Your task to perform on an android device: toggle wifi Image 0: 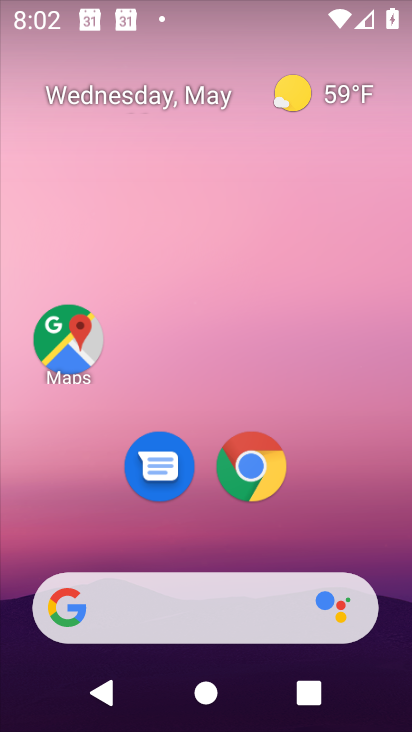
Step 0: drag from (345, 535) to (335, 251)
Your task to perform on an android device: toggle wifi Image 1: 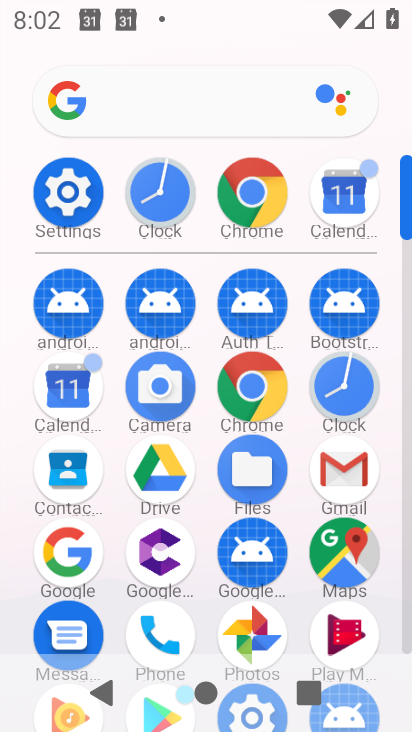
Step 1: click (83, 192)
Your task to perform on an android device: toggle wifi Image 2: 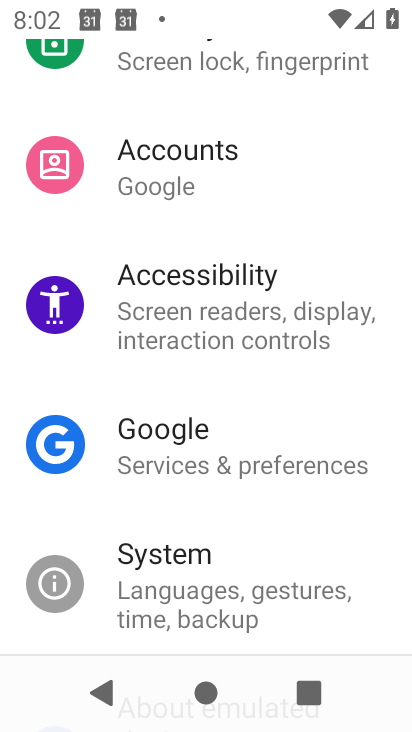
Step 2: drag from (197, 112) to (197, 518)
Your task to perform on an android device: toggle wifi Image 3: 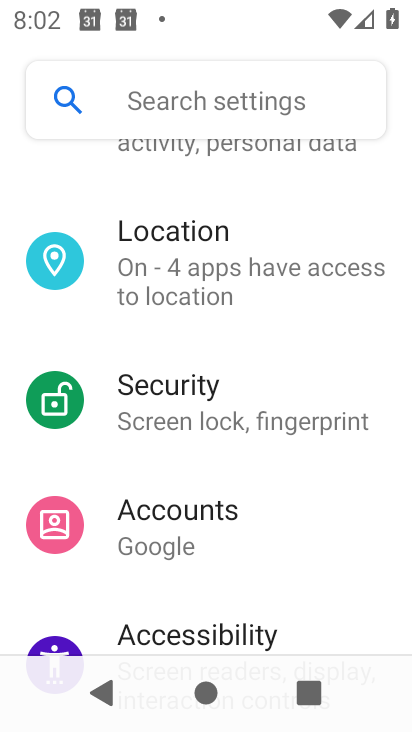
Step 3: drag from (163, 219) to (184, 623)
Your task to perform on an android device: toggle wifi Image 4: 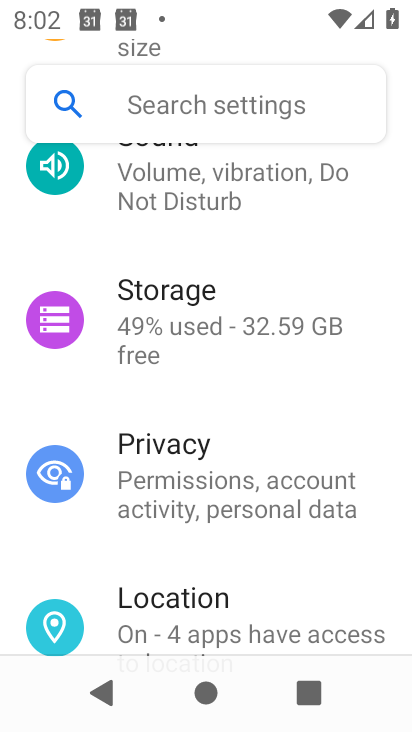
Step 4: drag from (183, 213) to (177, 625)
Your task to perform on an android device: toggle wifi Image 5: 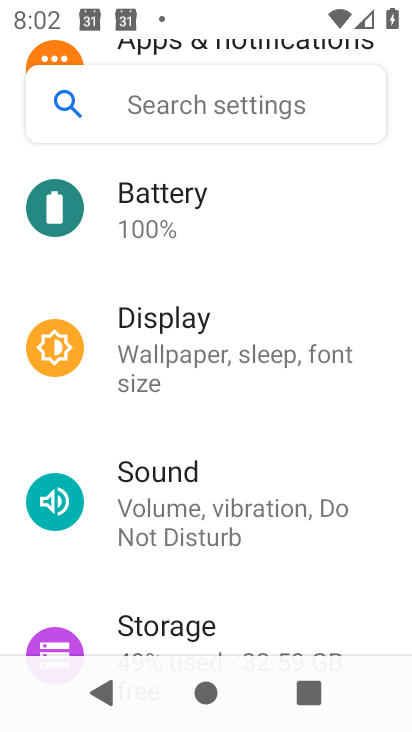
Step 5: drag from (175, 207) to (203, 630)
Your task to perform on an android device: toggle wifi Image 6: 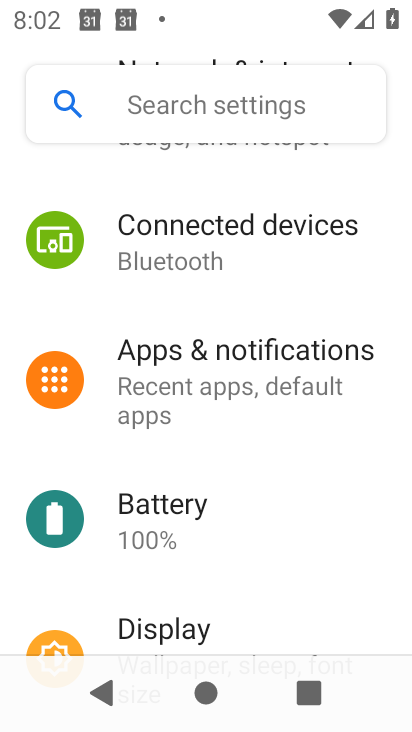
Step 6: drag from (211, 177) to (226, 625)
Your task to perform on an android device: toggle wifi Image 7: 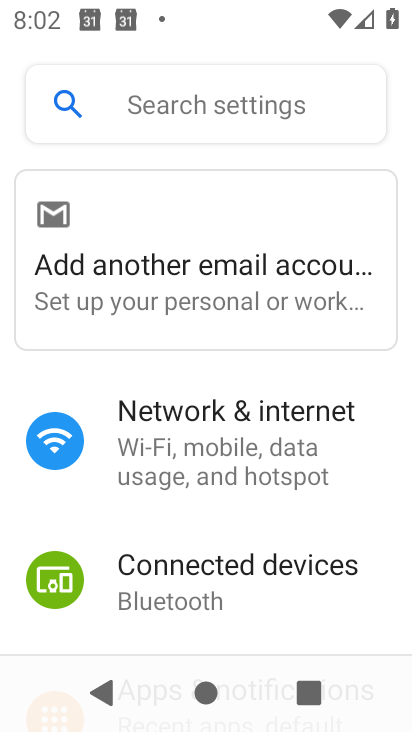
Step 7: click (189, 457)
Your task to perform on an android device: toggle wifi Image 8: 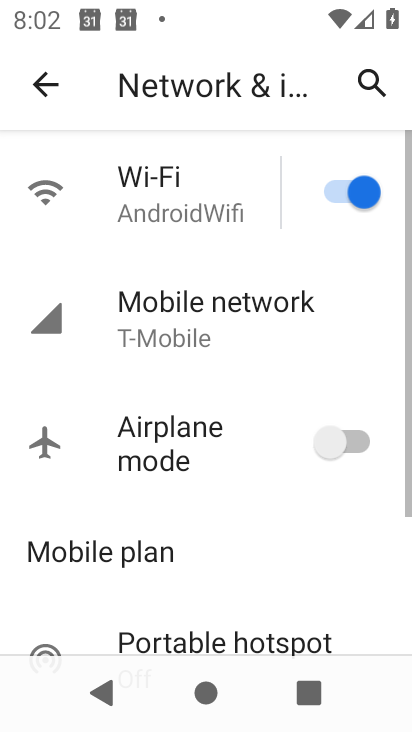
Step 8: click (333, 191)
Your task to perform on an android device: toggle wifi Image 9: 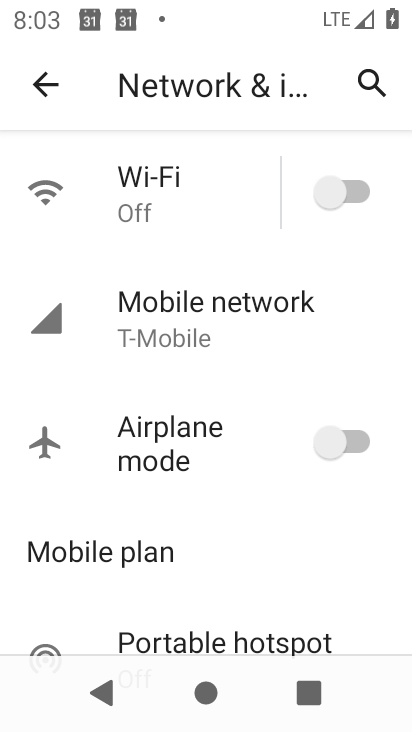
Step 9: task complete